Your task to perform on an android device: Open Google Image 0: 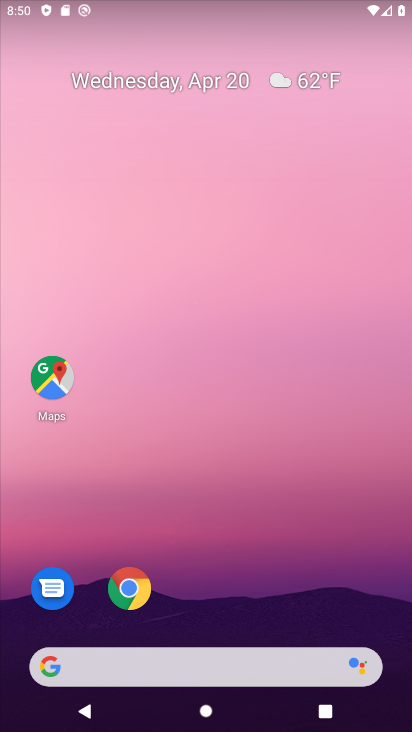
Step 0: drag from (198, 623) to (239, 2)
Your task to perform on an android device: Open Google Image 1: 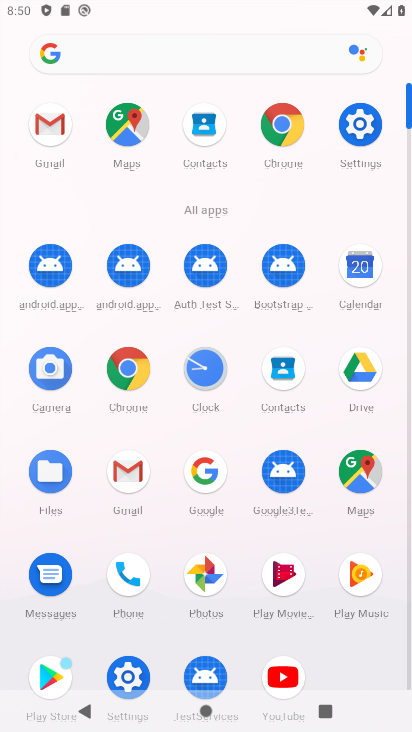
Step 1: click (204, 466)
Your task to perform on an android device: Open Google Image 2: 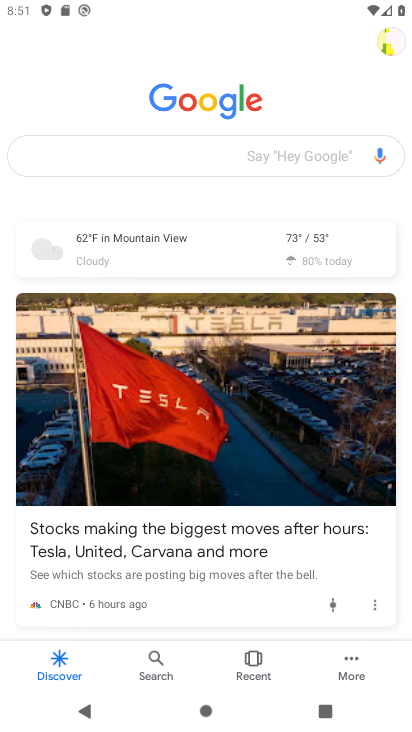
Step 2: task complete